Your task to perform on an android device: Turn on the flashlight Image 0: 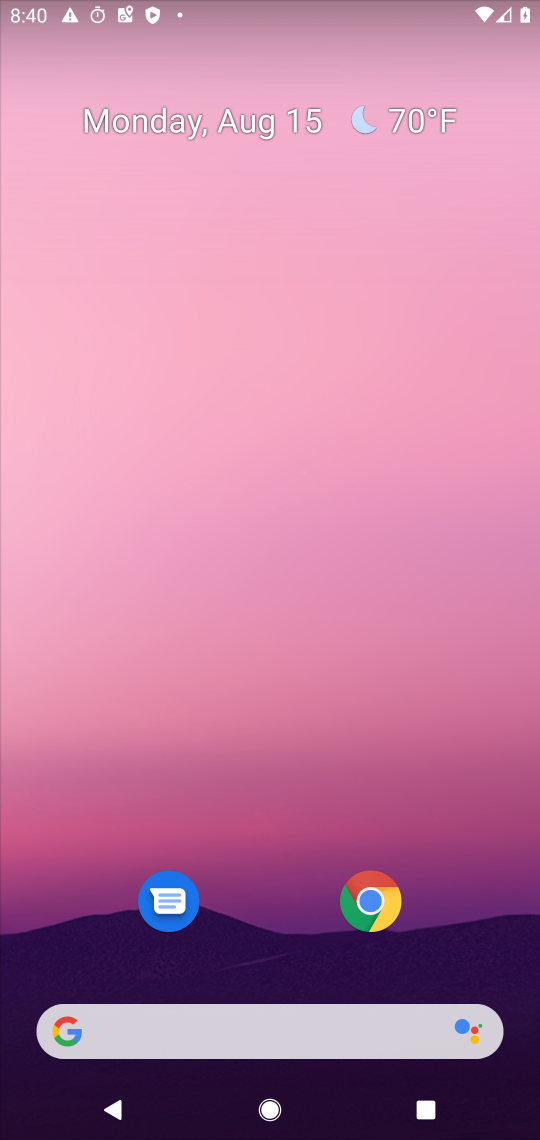
Step 0: drag from (299, 388) to (336, 253)
Your task to perform on an android device: Turn on the flashlight Image 1: 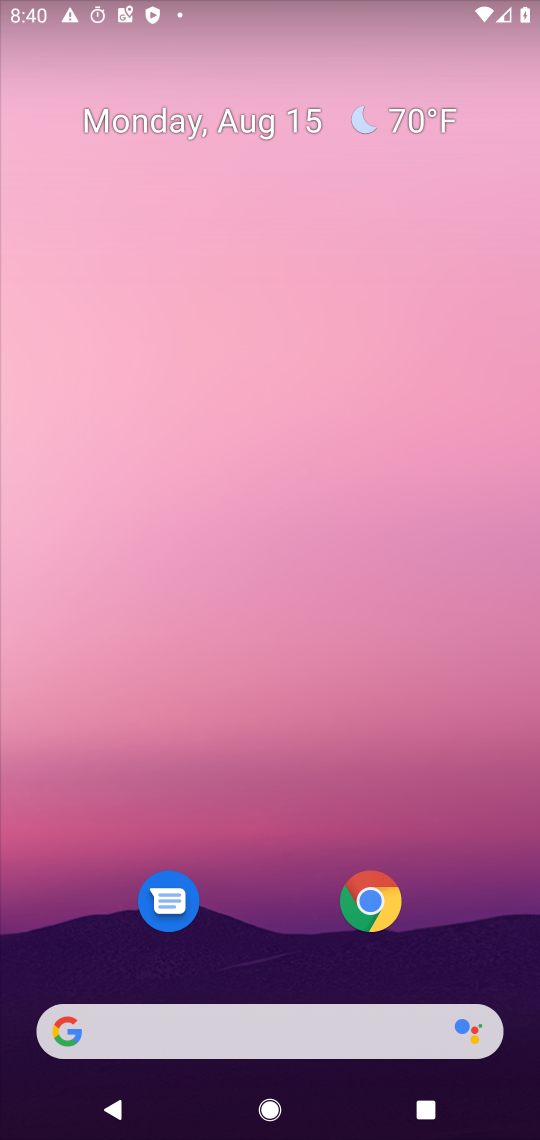
Step 1: drag from (218, 455) to (238, 40)
Your task to perform on an android device: Turn on the flashlight Image 2: 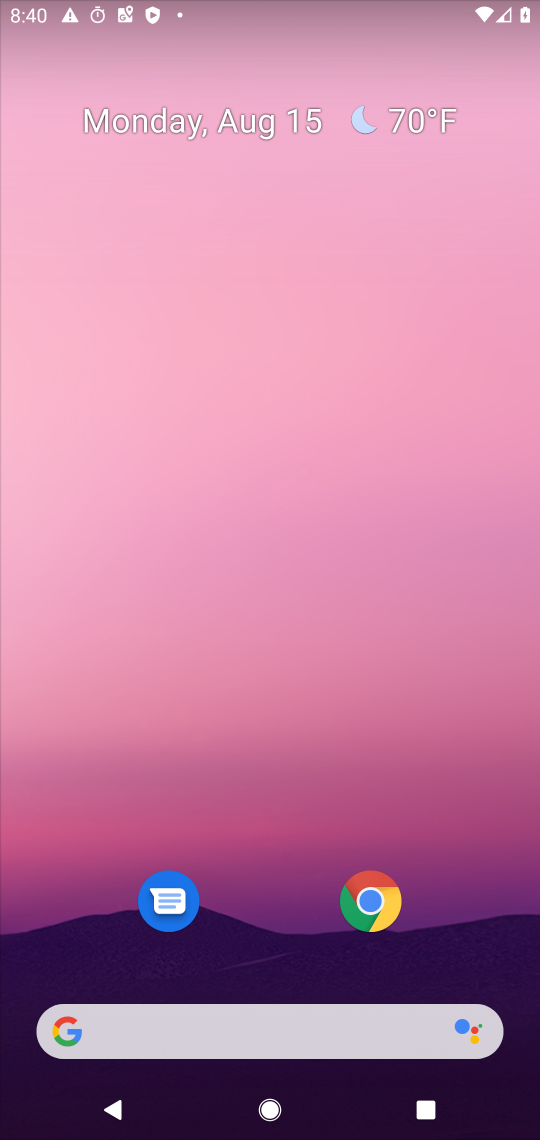
Step 2: drag from (227, 219) to (205, 45)
Your task to perform on an android device: Turn on the flashlight Image 3: 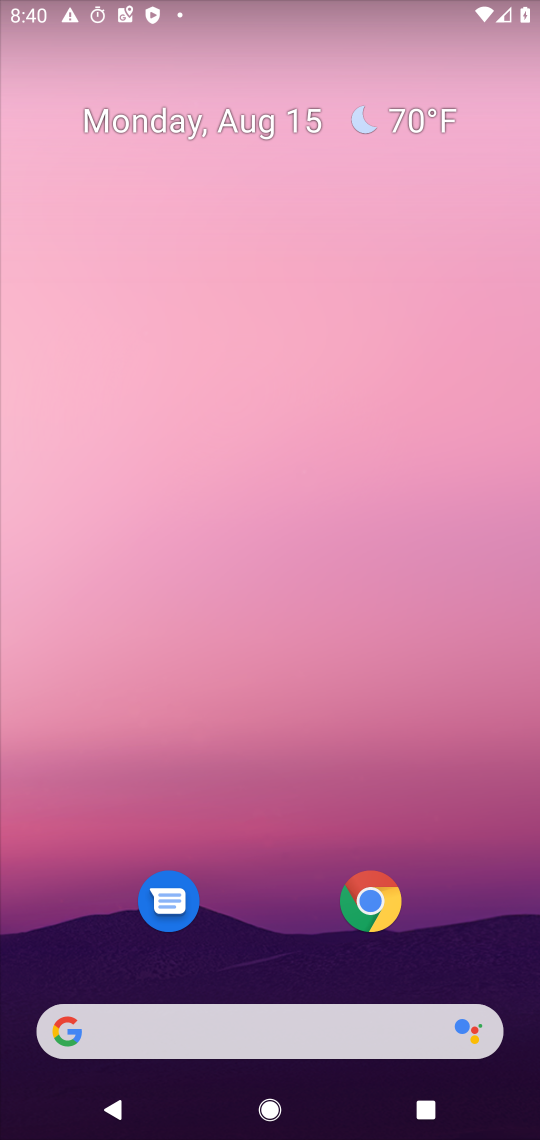
Step 3: drag from (264, 674) to (261, 59)
Your task to perform on an android device: Turn on the flashlight Image 4: 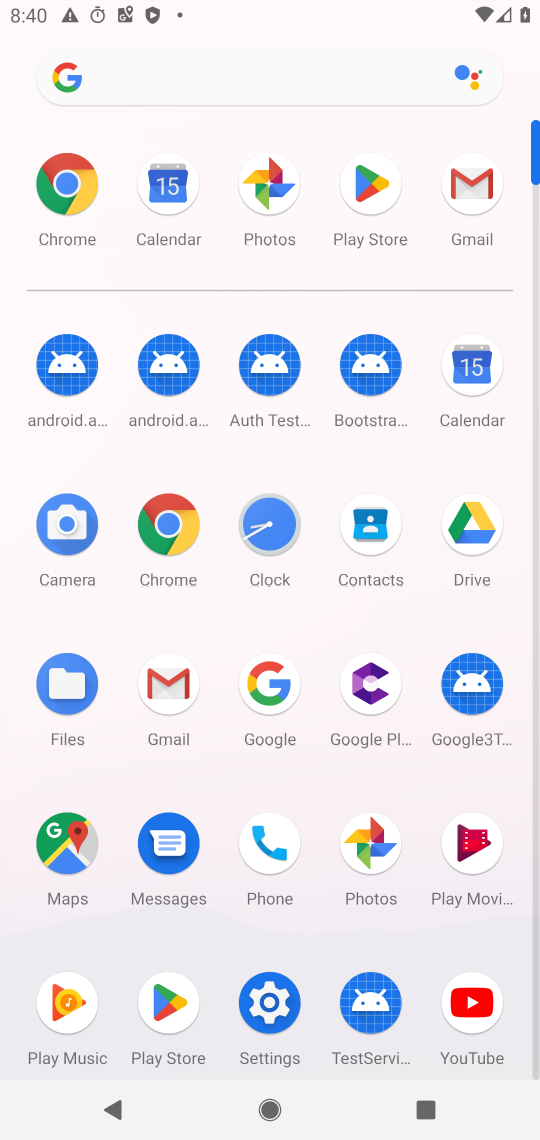
Step 4: click (272, 1022)
Your task to perform on an android device: Turn on the flashlight Image 5: 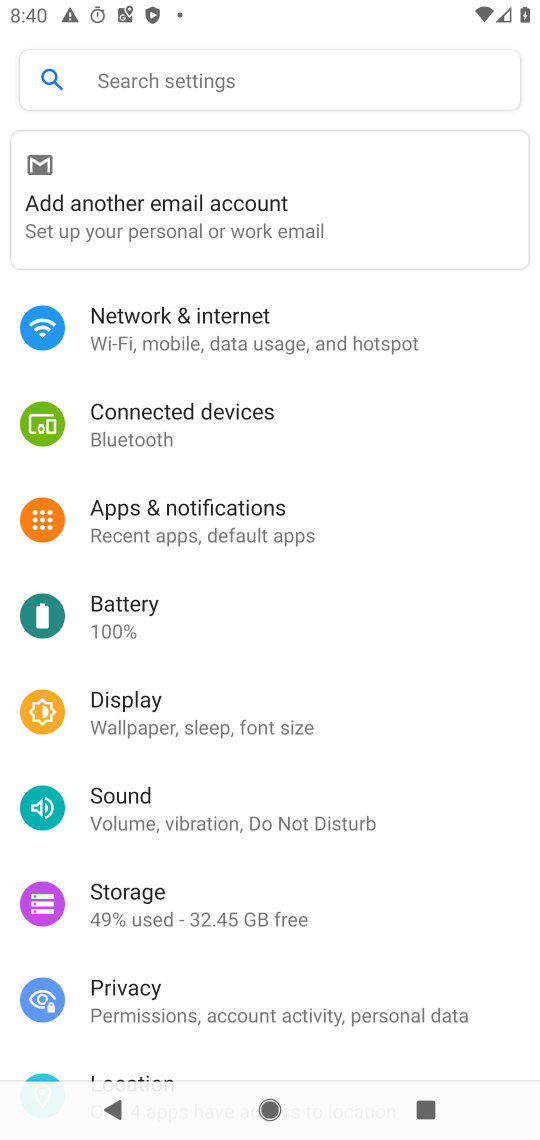
Step 5: click (311, 90)
Your task to perform on an android device: Turn on the flashlight Image 6: 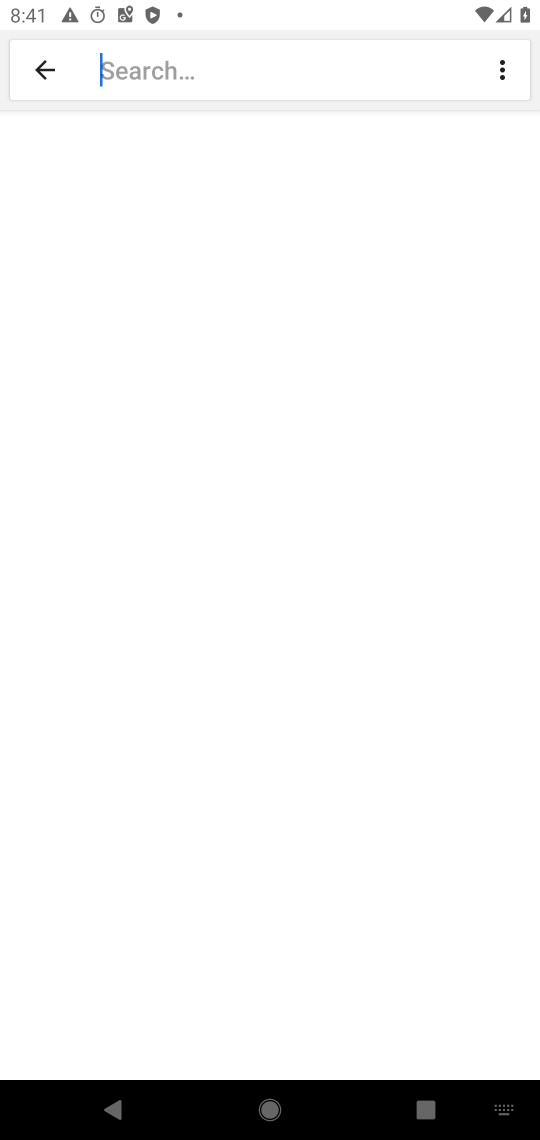
Step 6: type "flashlight"
Your task to perform on an android device: Turn on the flashlight Image 7: 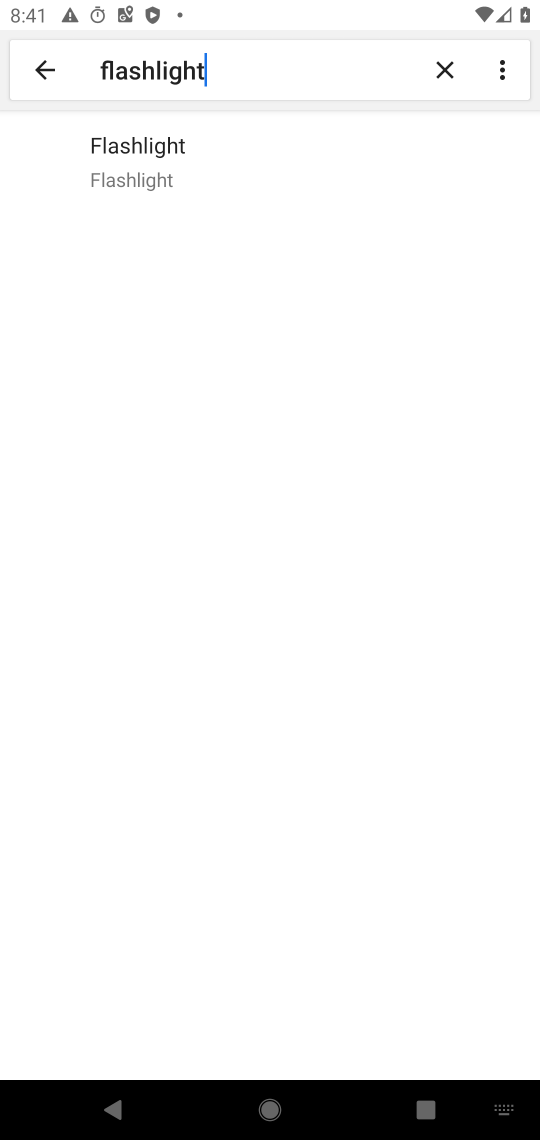
Step 7: click (136, 170)
Your task to perform on an android device: Turn on the flashlight Image 8: 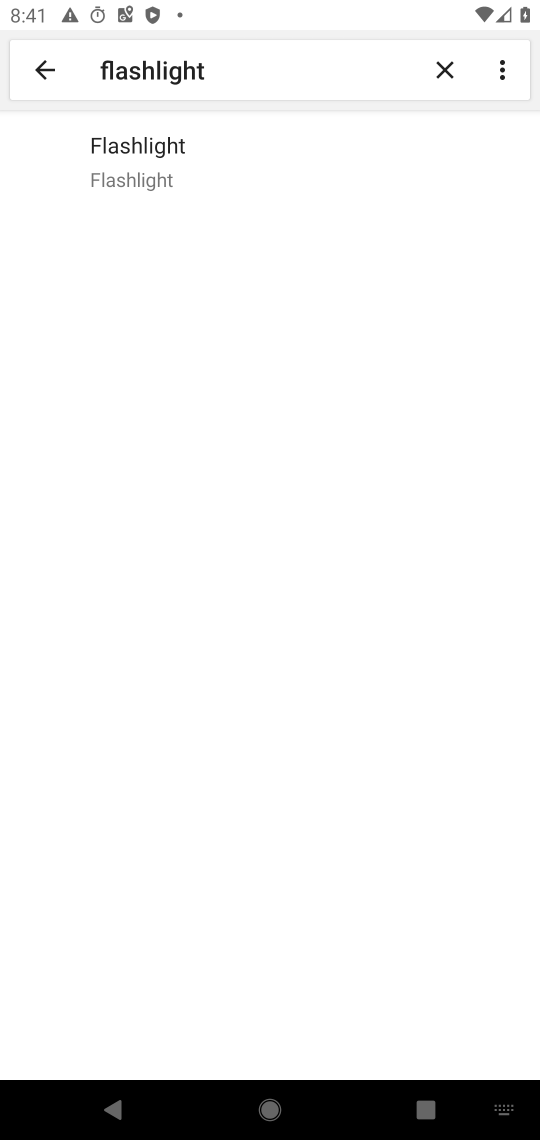
Step 8: click (125, 165)
Your task to perform on an android device: Turn on the flashlight Image 9: 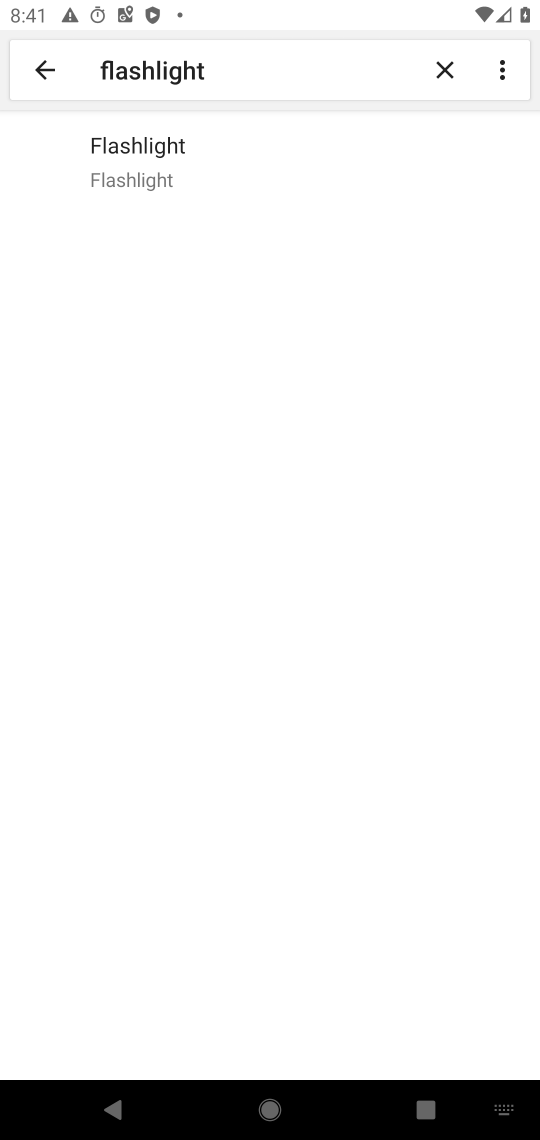
Step 9: click (129, 166)
Your task to perform on an android device: Turn on the flashlight Image 10: 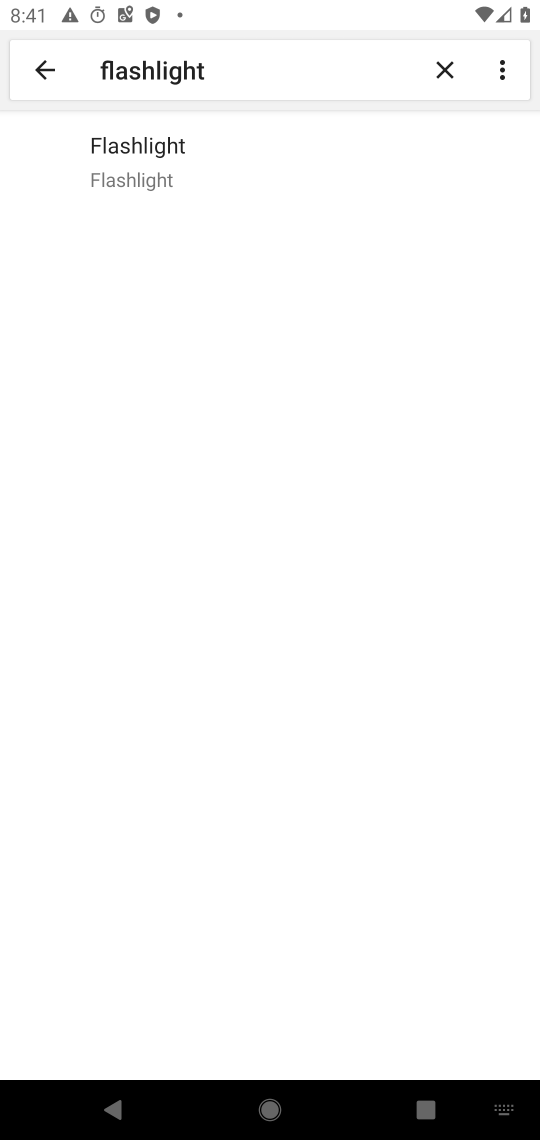
Step 10: task complete